Your task to perform on an android device: open chrome and create a bookmark for the current page Image 0: 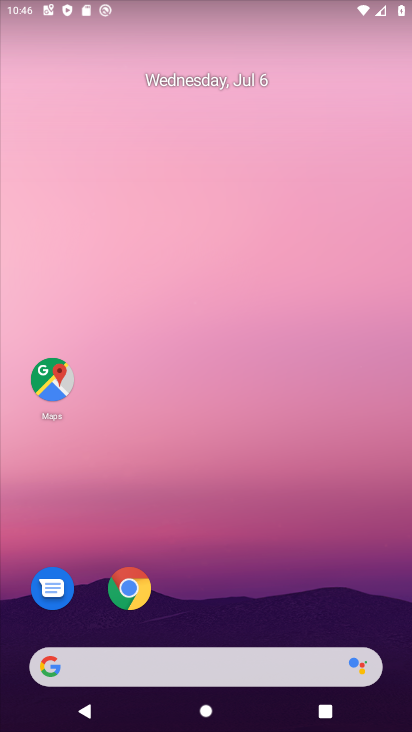
Step 0: drag from (353, 592) to (296, 239)
Your task to perform on an android device: open chrome and create a bookmark for the current page Image 1: 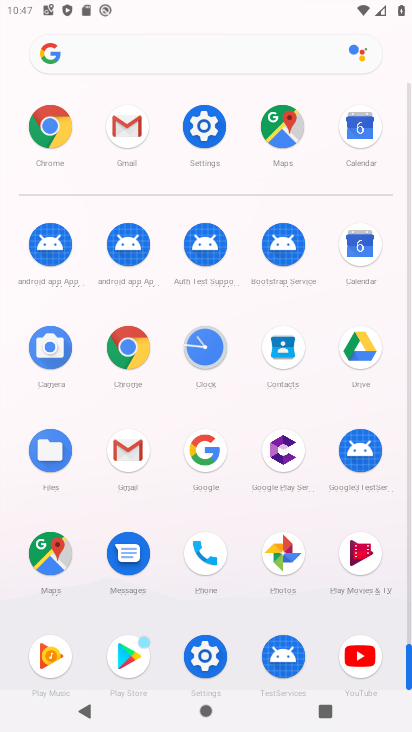
Step 1: click (56, 132)
Your task to perform on an android device: open chrome and create a bookmark for the current page Image 2: 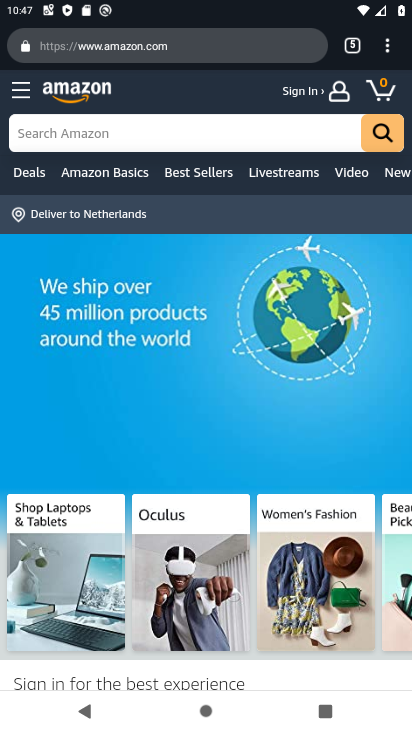
Step 2: click (388, 53)
Your task to perform on an android device: open chrome and create a bookmark for the current page Image 3: 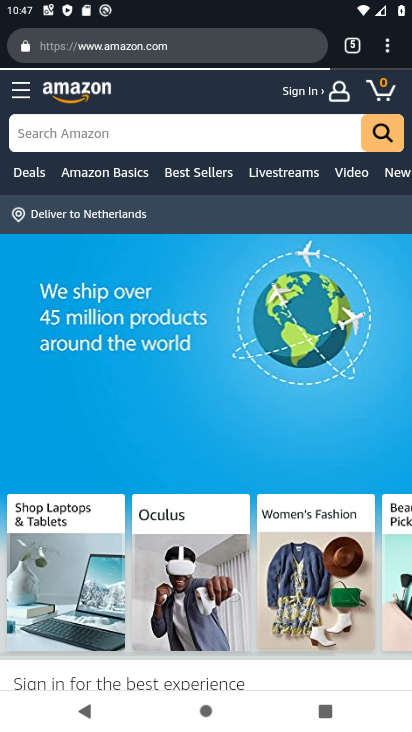
Step 3: click (382, 48)
Your task to perform on an android device: open chrome and create a bookmark for the current page Image 4: 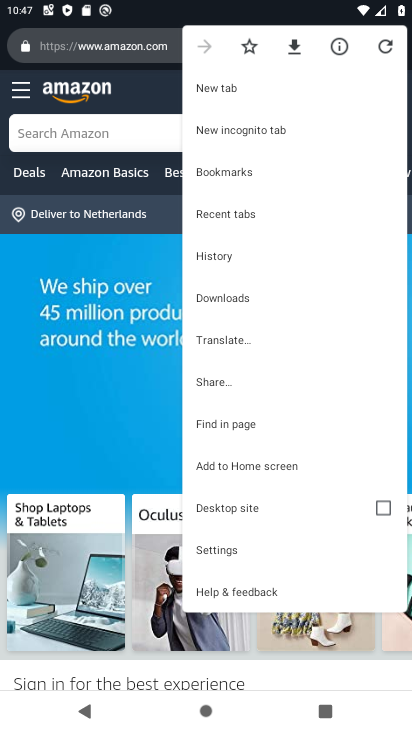
Step 4: click (243, 43)
Your task to perform on an android device: open chrome and create a bookmark for the current page Image 5: 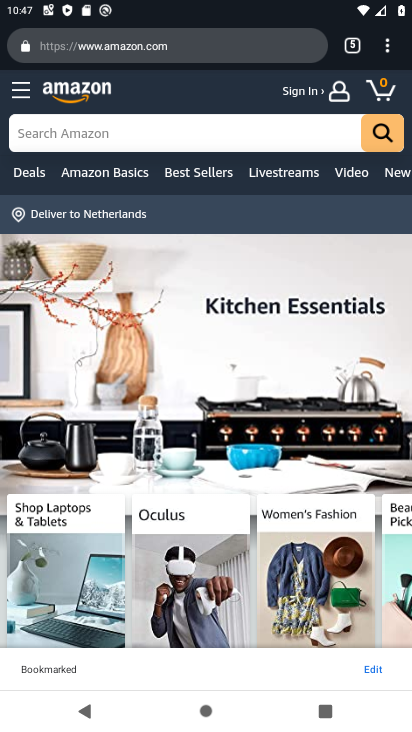
Step 5: task complete